Your task to perform on an android device: see tabs open on other devices in the chrome app Image 0: 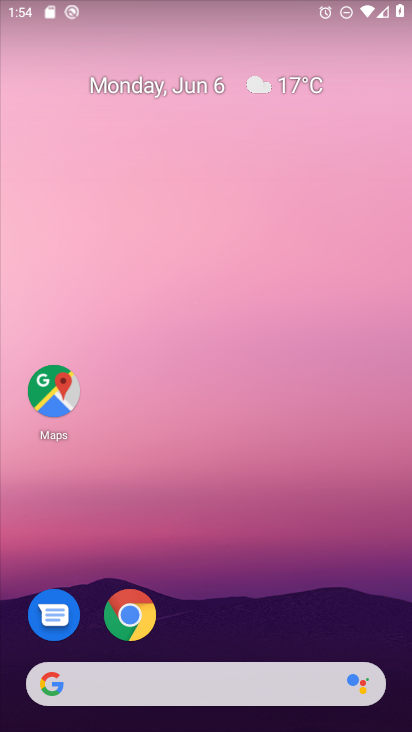
Step 0: click (125, 610)
Your task to perform on an android device: see tabs open on other devices in the chrome app Image 1: 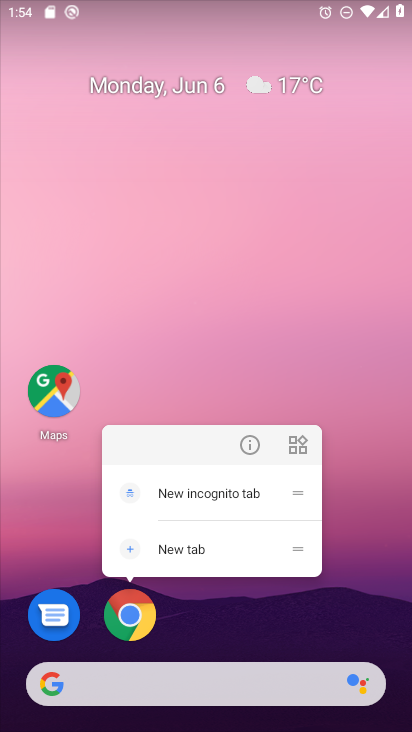
Step 1: click (126, 607)
Your task to perform on an android device: see tabs open on other devices in the chrome app Image 2: 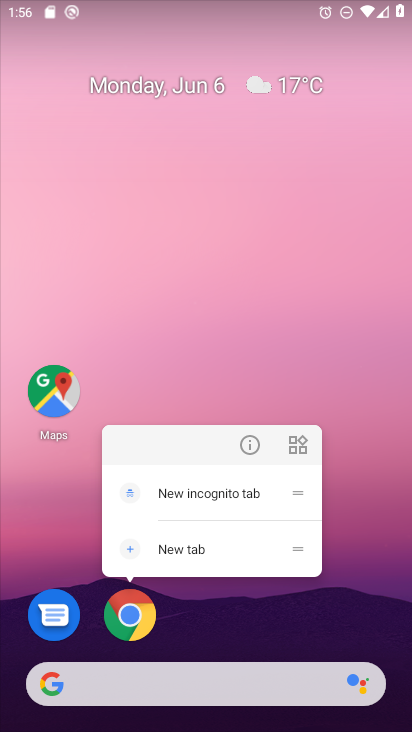
Step 2: click (114, 631)
Your task to perform on an android device: see tabs open on other devices in the chrome app Image 3: 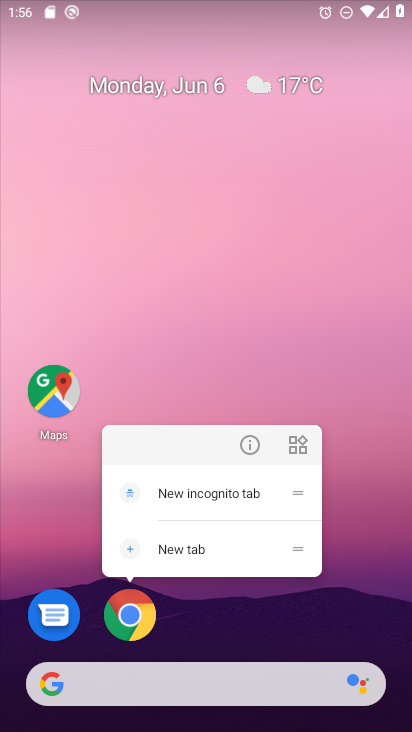
Step 3: click (116, 630)
Your task to perform on an android device: see tabs open on other devices in the chrome app Image 4: 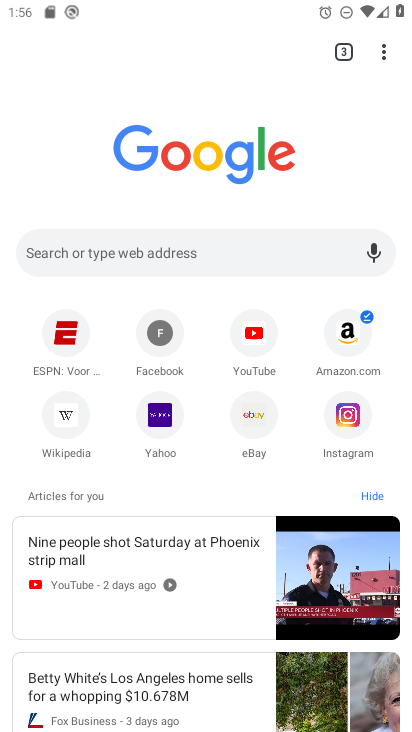
Step 4: click (388, 62)
Your task to perform on an android device: see tabs open on other devices in the chrome app Image 5: 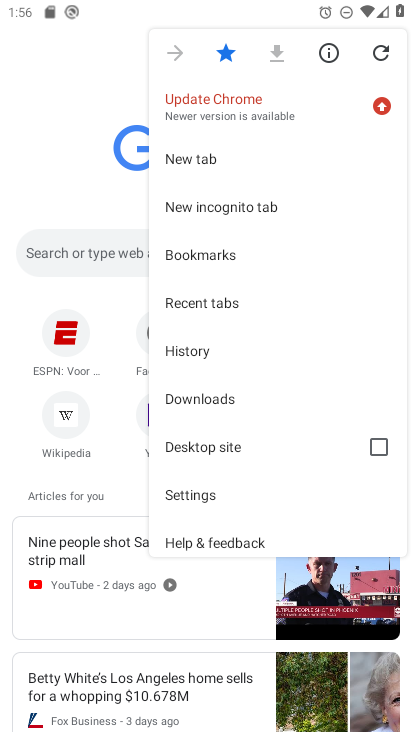
Step 5: click (213, 303)
Your task to perform on an android device: see tabs open on other devices in the chrome app Image 6: 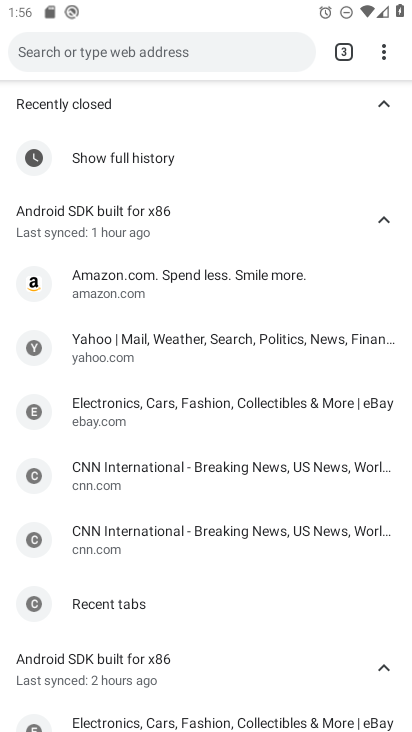
Step 6: task complete